Your task to perform on an android device: Open calendar and show me the first week of next month Image 0: 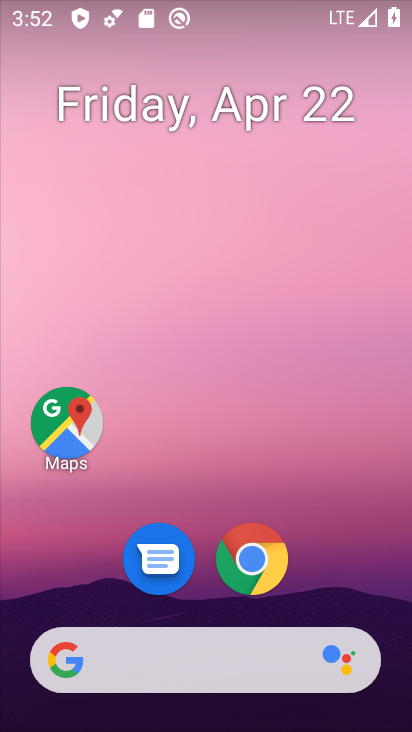
Step 0: click (252, 553)
Your task to perform on an android device: Open calendar and show me the first week of next month Image 1: 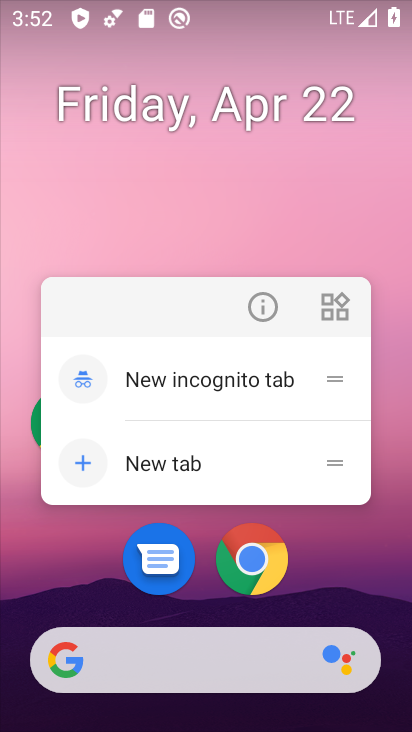
Step 1: click (252, 557)
Your task to perform on an android device: Open calendar and show me the first week of next month Image 2: 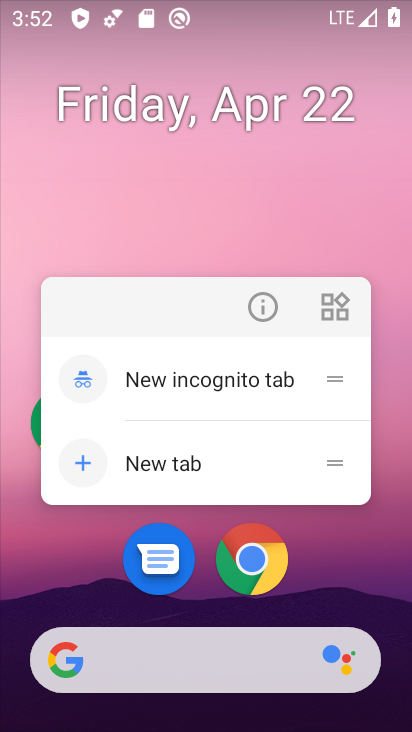
Step 2: drag from (269, 282) to (250, 62)
Your task to perform on an android device: Open calendar and show me the first week of next month Image 3: 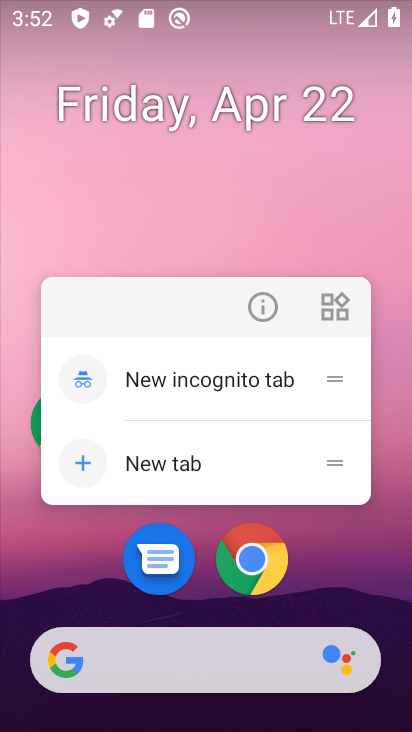
Step 3: click (319, 584)
Your task to perform on an android device: Open calendar and show me the first week of next month Image 4: 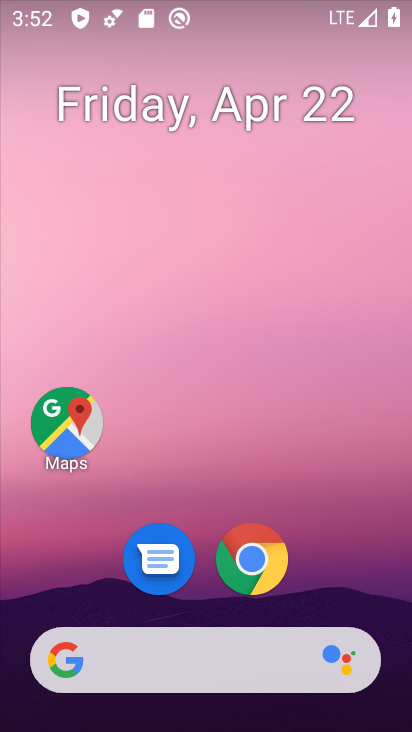
Step 4: drag from (319, 584) to (220, 116)
Your task to perform on an android device: Open calendar and show me the first week of next month Image 5: 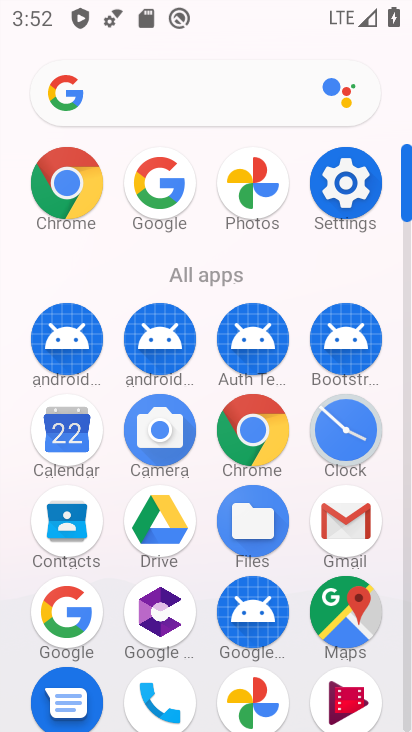
Step 5: click (75, 428)
Your task to perform on an android device: Open calendar and show me the first week of next month Image 6: 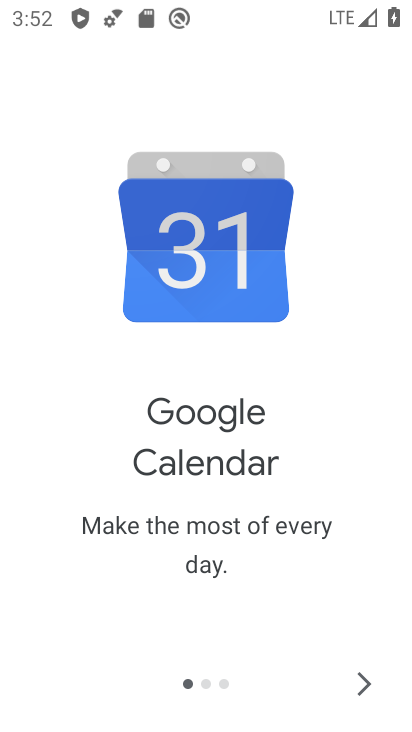
Step 6: click (358, 684)
Your task to perform on an android device: Open calendar and show me the first week of next month Image 7: 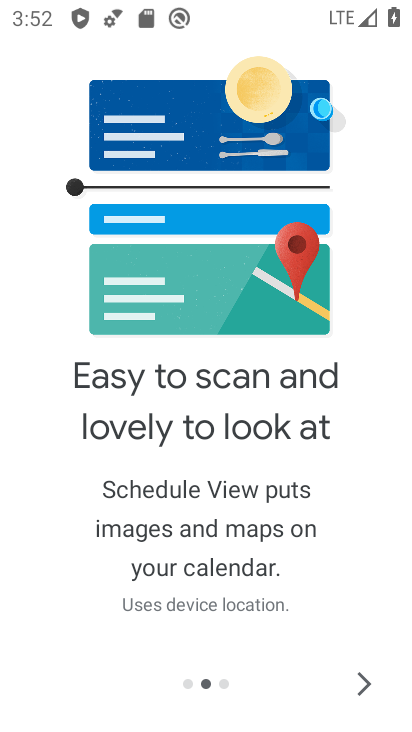
Step 7: click (358, 684)
Your task to perform on an android device: Open calendar and show me the first week of next month Image 8: 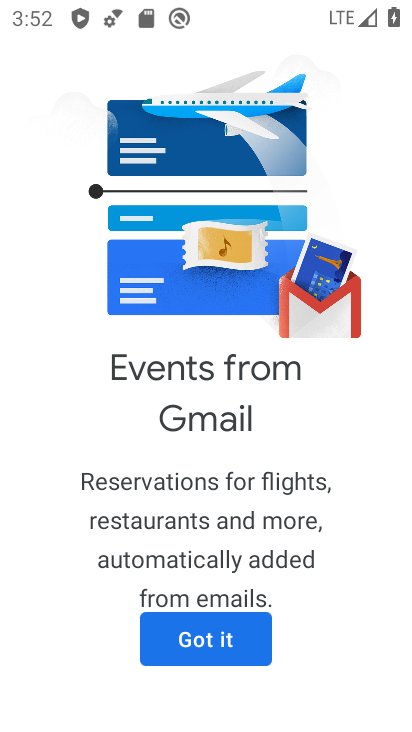
Step 8: click (233, 632)
Your task to perform on an android device: Open calendar and show me the first week of next month Image 9: 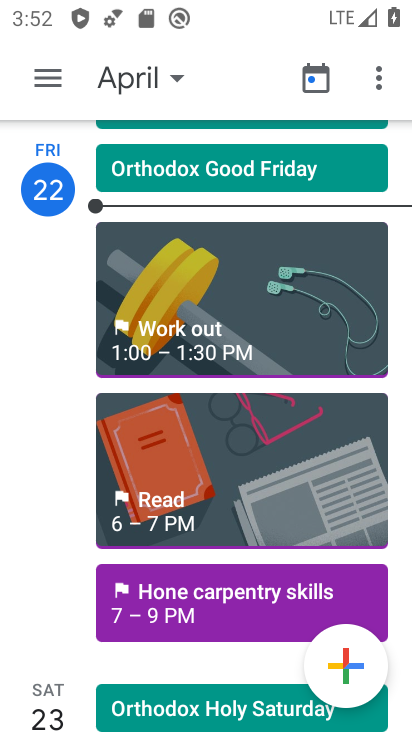
Step 9: click (46, 72)
Your task to perform on an android device: Open calendar and show me the first week of next month Image 10: 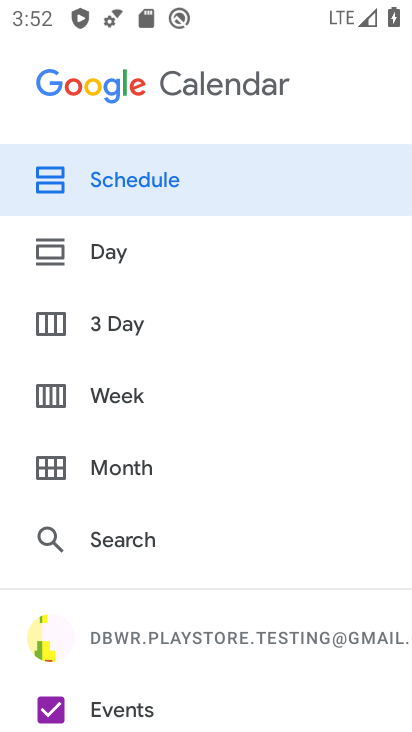
Step 10: click (96, 392)
Your task to perform on an android device: Open calendar and show me the first week of next month Image 11: 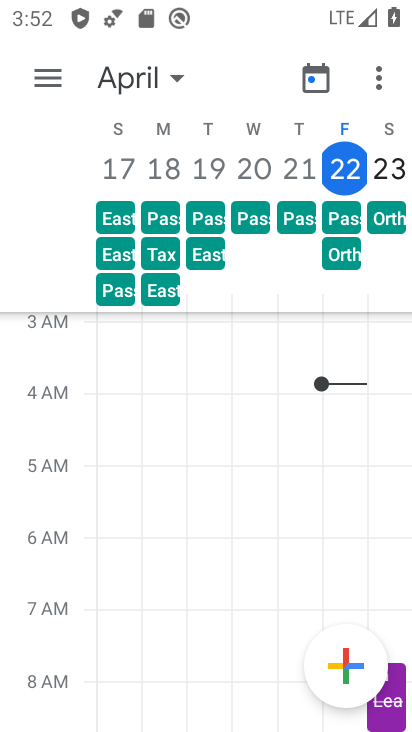
Step 11: click (176, 78)
Your task to perform on an android device: Open calendar and show me the first week of next month Image 12: 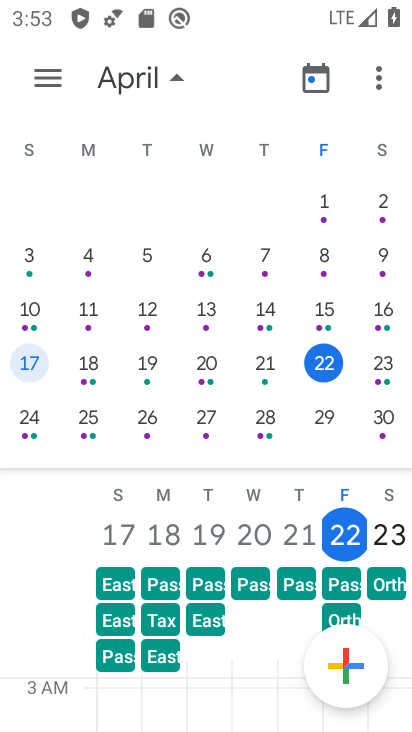
Step 12: drag from (350, 330) to (0, 281)
Your task to perform on an android device: Open calendar and show me the first week of next month Image 13: 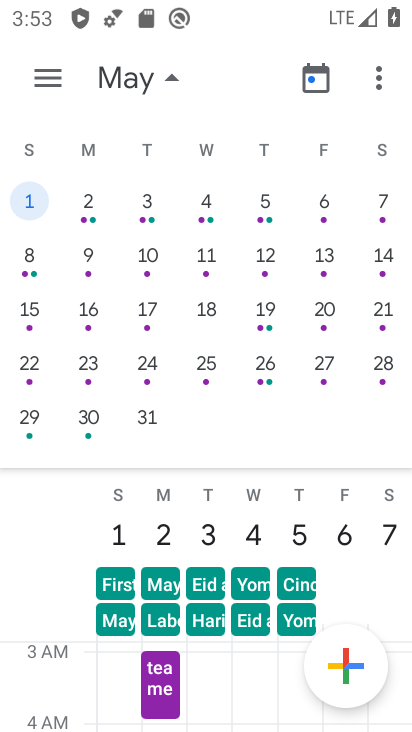
Step 13: click (11, 247)
Your task to perform on an android device: Open calendar and show me the first week of next month Image 14: 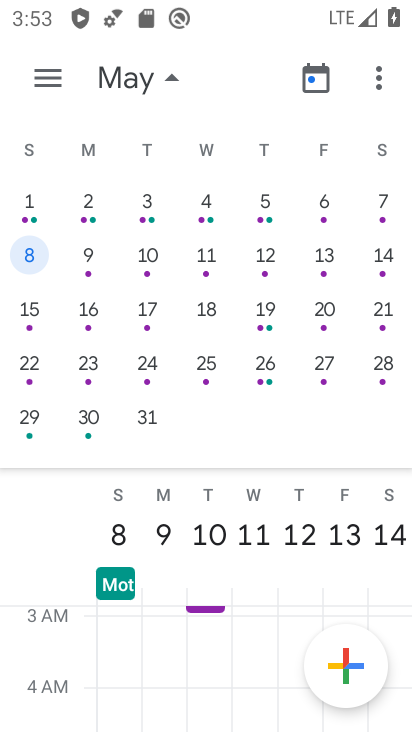
Step 14: click (42, 202)
Your task to perform on an android device: Open calendar and show me the first week of next month Image 15: 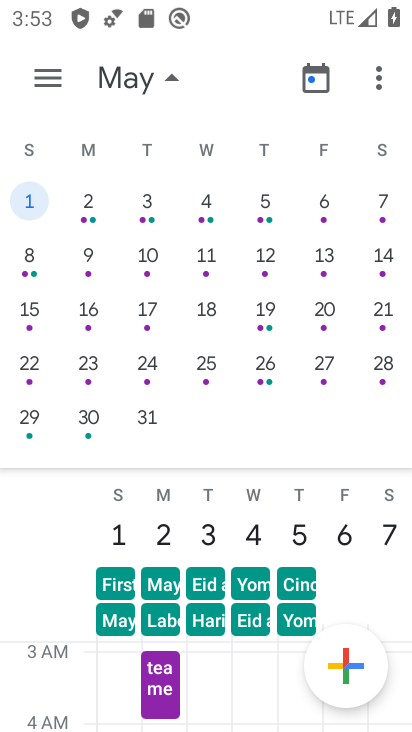
Step 15: task complete